Your task to perform on an android device: Open the phone app and click the voicemail tab. Image 0: 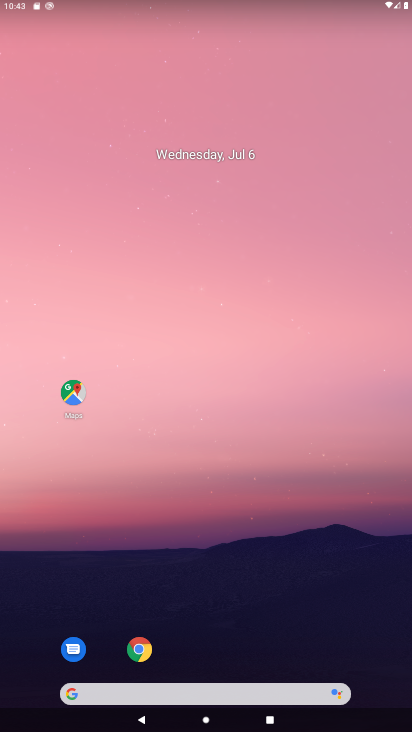
Step 0: drag from (302, 687) to (289, 3)
Your task to perform on an android device: Open the phone app and click the voicemail tab. Image 1: 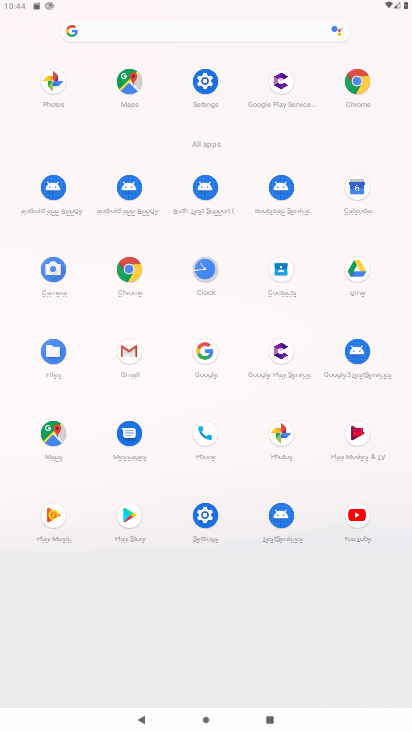
Step 1: press home button
Your task to perform on an android device: Open the phone app and click the voicemail tab. Image 2: 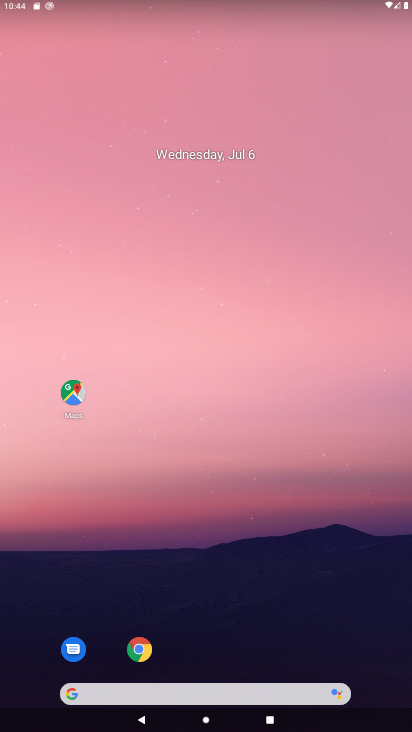
Step 2: drag from (265, 595) to (287, 127)
Your task to perform on an android device: Open the phone app and click the voicemail tab. Image 3: 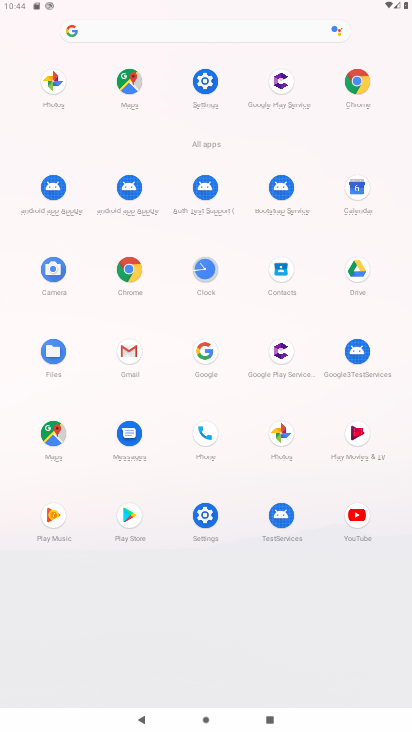
Step 3: click (207, 429)
Your task to perform on an android device: Open the phone app and click the voicemail tab. Image 4: 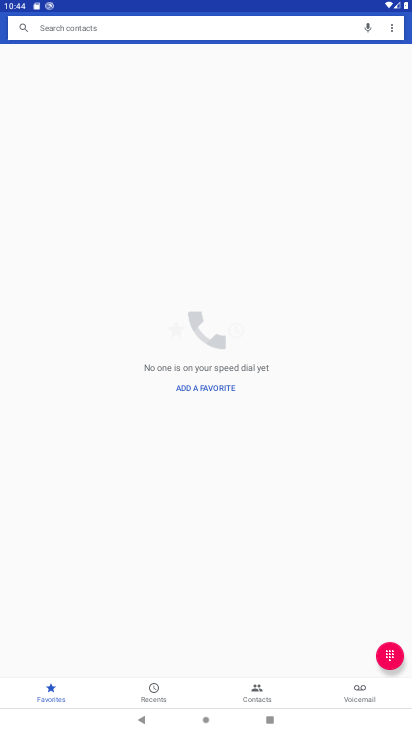
Step 4: click (365, 688)
Your task to perform on an android device: Open the phone app and click the voicemail tab. Image 5: 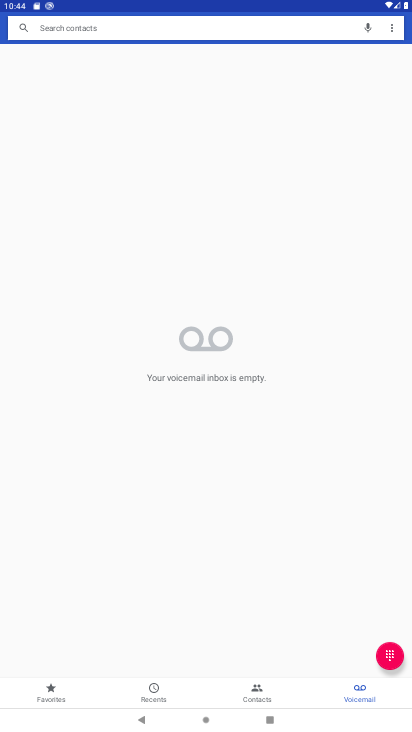
Step 5: task complete